Your task to perform on an android device: allow cookies in the chrome app Image 0: 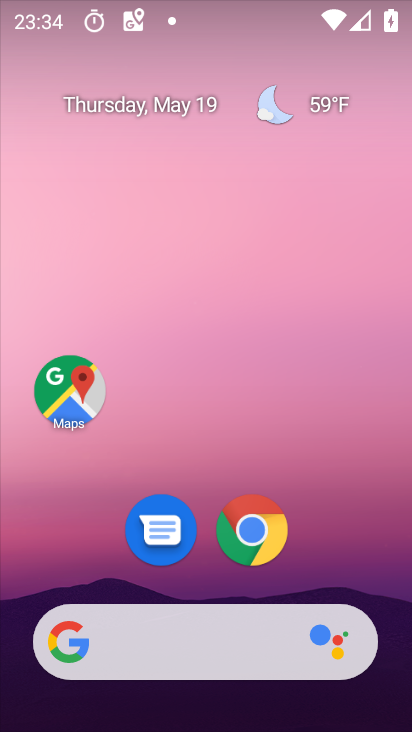
Step 0: drag from (354, 583) to (355, 144)
Your task to perform on an android device: allow cookies in the chrome app Image 1: 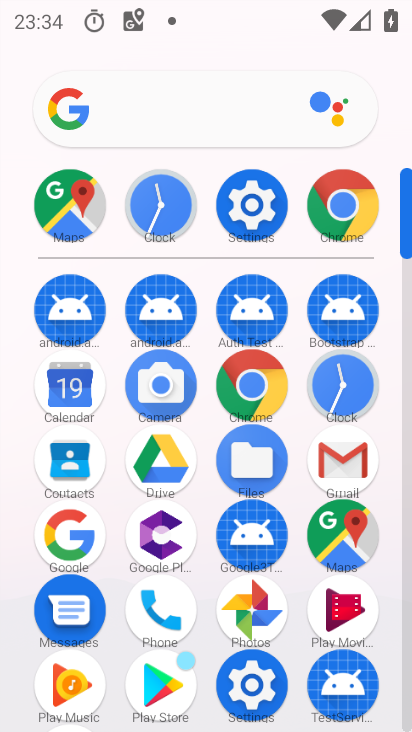
Step 1: click (284, 397)
Your task to perform on an android device: allow cookies in the chrome app Image 2: 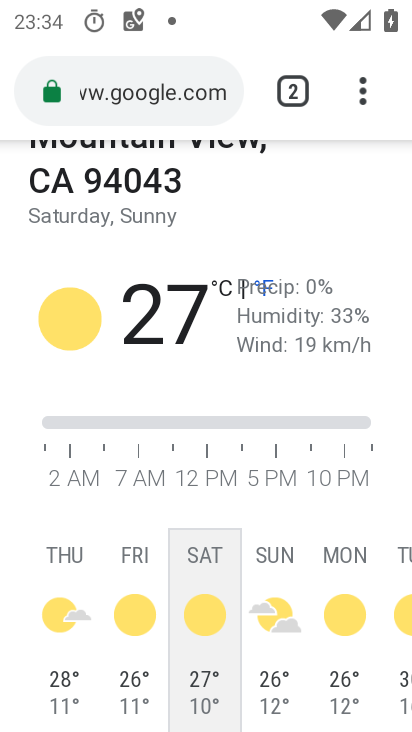
Step 2: drag from (361, 108) to (135, 569)
Your task to perform on an android device: allow cookies in the chrome app Image 3: 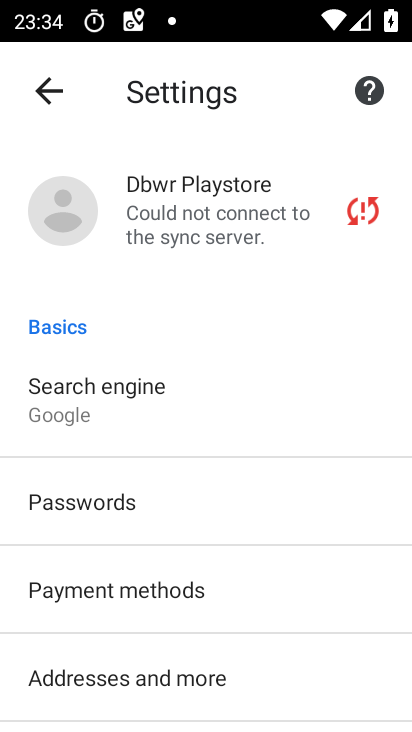
Step 3: drag from (291, 660) to (237, 321)
Your task to perform on an android device: allow cookies in the chrome app Image 4: 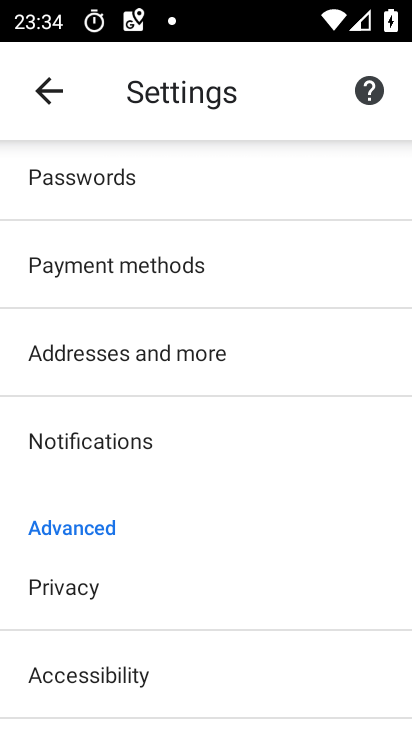
Step 4: drag from (242, 647) to (268, 294)
Your task to perform on an android device: allow cookies in the chrome app Image 5: 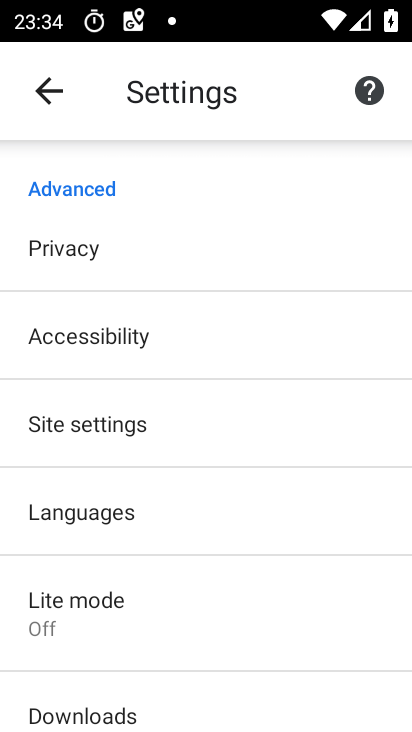
Step 5: click (149, 430)
Your task to perform on an android device: allow cookies in the chrome app Image 6: 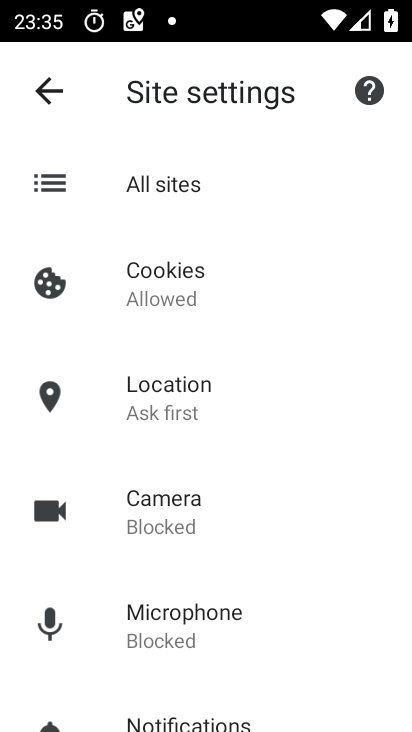
Step 6: click (169, 275)
Your task to perform on an android device: allow cookies in the chrome app Image 7: 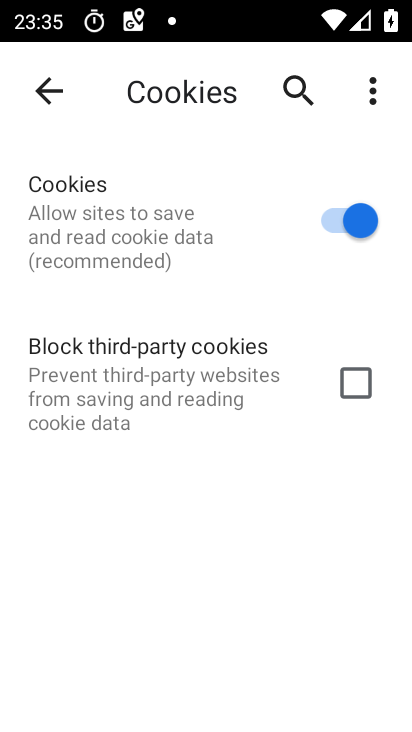
Step 7: task complete